Your task to perform on an android device: Go to sound settings Image 0: 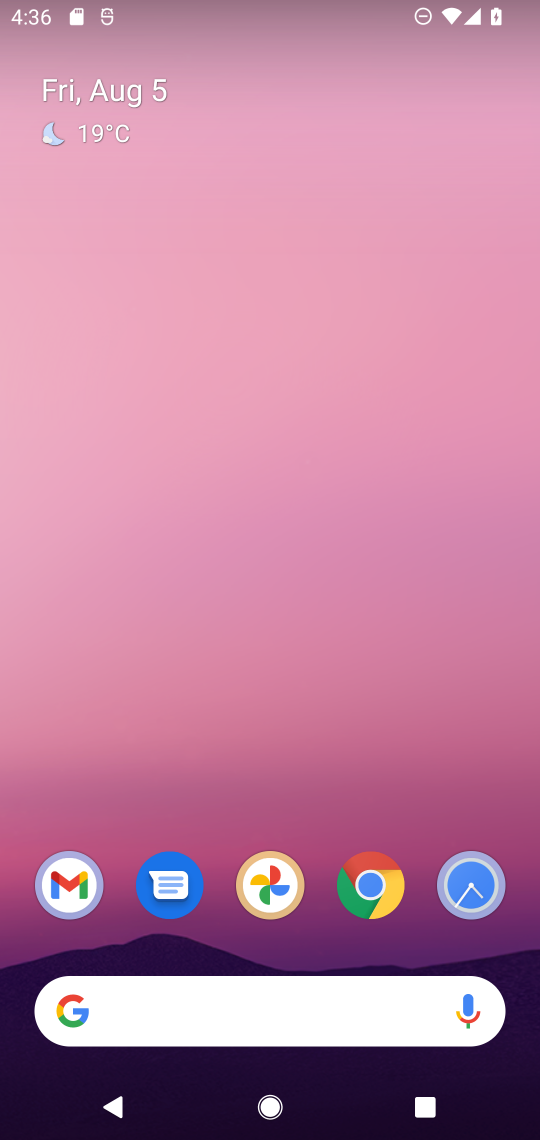
Step 0: drag from (308, 885) to (287, 320)
Your task to perform on an android device: Go to sound settings Image 1: 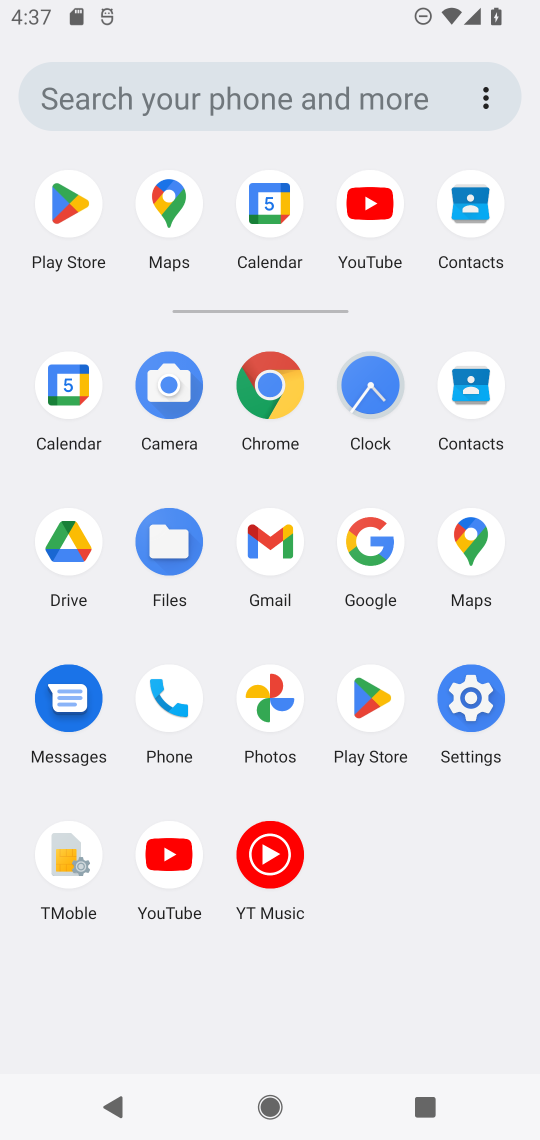
Step 1: click (489, 695)
Your task to perform on an android device: Go to sound settings Image 2: 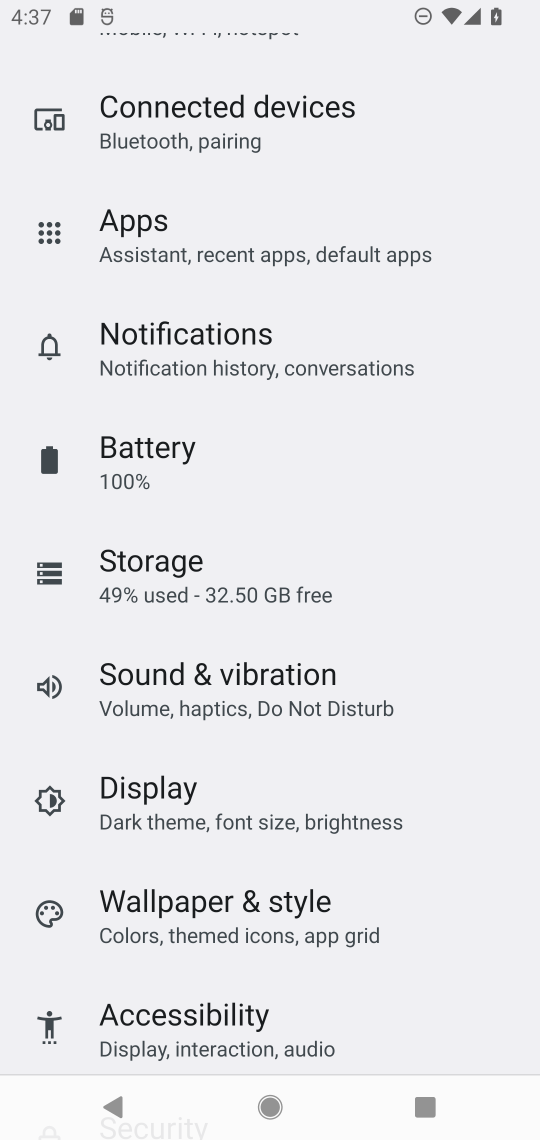
Step 2: click (153, 675)
Your task to perform on an android device: Go to sound settings Image 3: 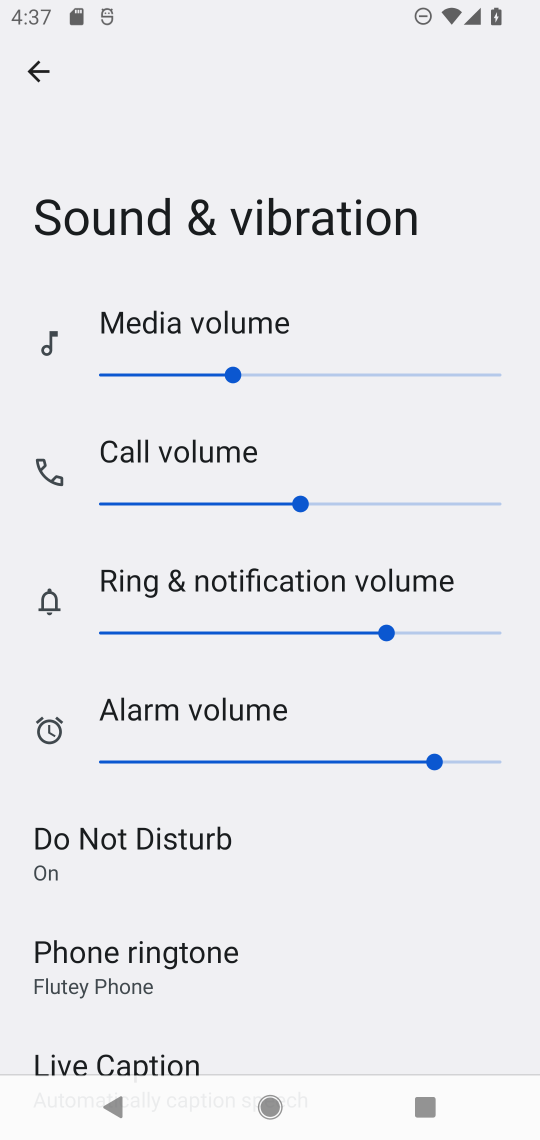
Step 3: task complete